Your task to perform on an android device: see tabs open on other devices in the chrome app Image 0: 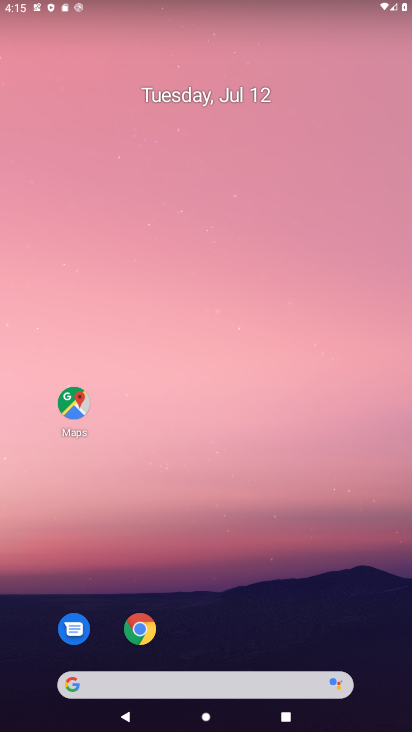
Step 0: drag from (257, 593) to (223, 51)
Your task to perform on an android device: see tabs open on other devices in the chrome app Image 1: 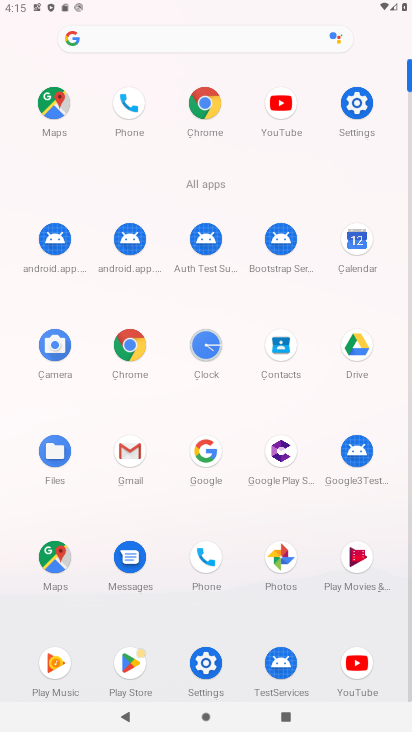
Step 1: click (133, 344)
Your task to perform on an android device: see tabs open on other devices in the chrome app Image 2: 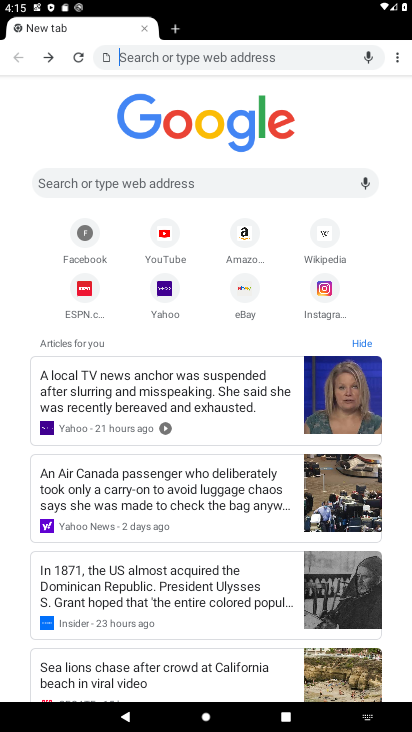
Step 2: task complete